Your task to perform on an android device: install app "Firefox Browser" Image 0: 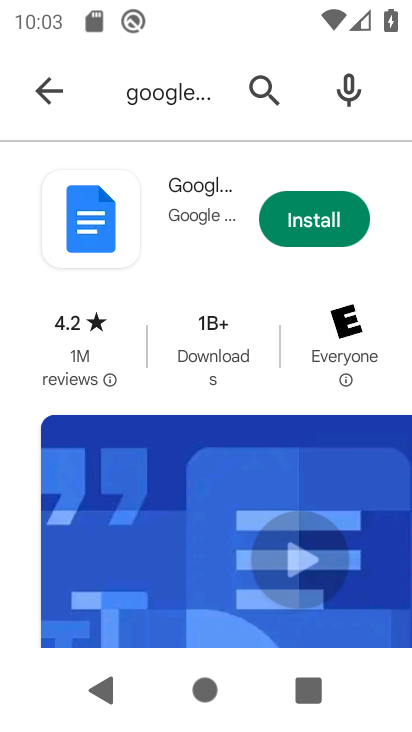
Step 0: click (250, 88)
Your task to perform on an android device: install app "Firefox Browser" Image 1: 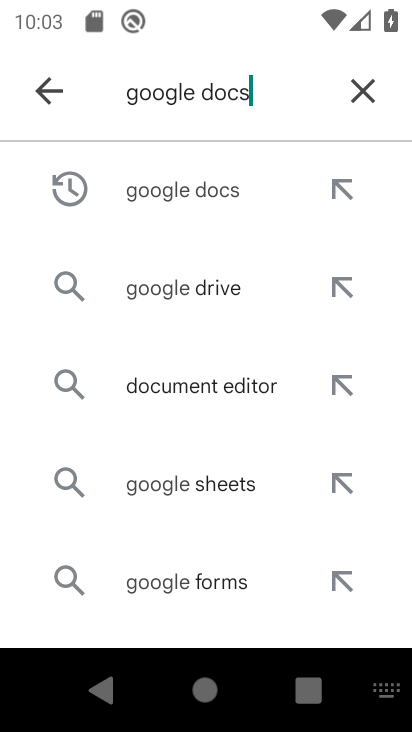
Step 1: click (353, 81)
Your task to perform on an android device: install app "Firefox Browser" Image 2: 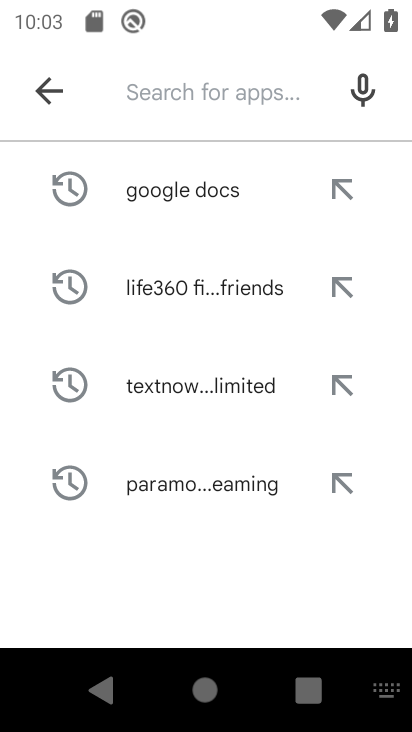
Step 2: type "Firefox Browser"
Your task to perform on an android device: install app "Firefox Browser" Image 3: 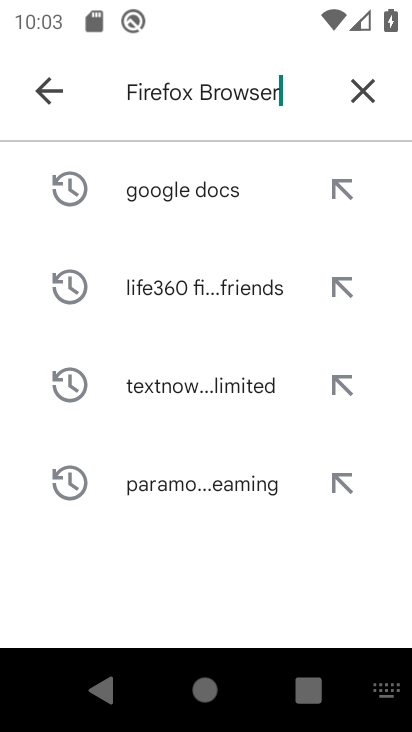
Step 3: type ""
Your task to perform on an android device: install app "Firefox Browser" Image 4: 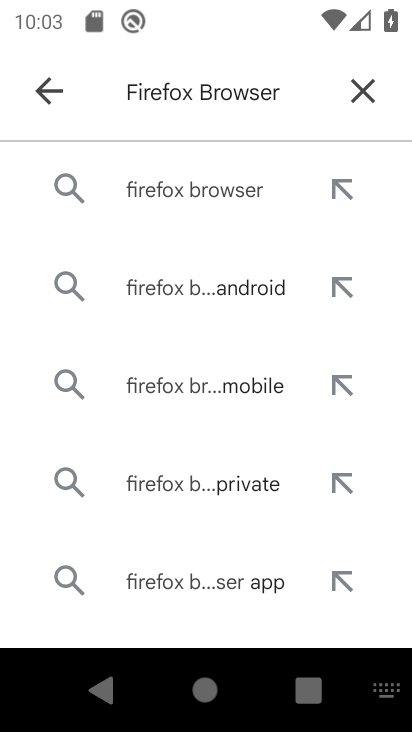
Step 4: click (247, 191)
Your task to perform on an android device: install app "Firefox Browser" Image 5: 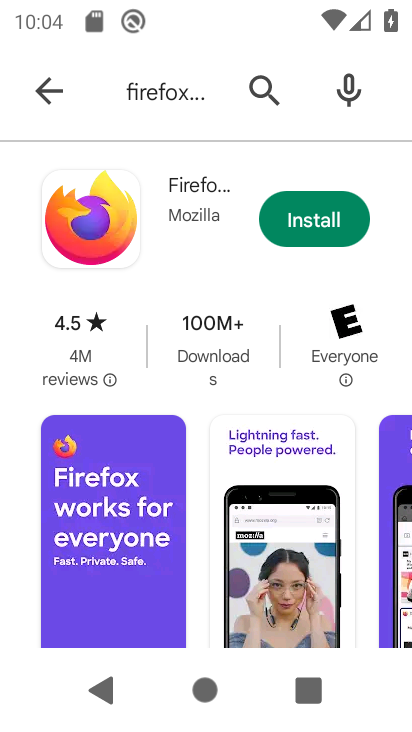
Step 5: click (320, 221)
Your task to perform on an android device: install app "Firefox Browser" Image 6: 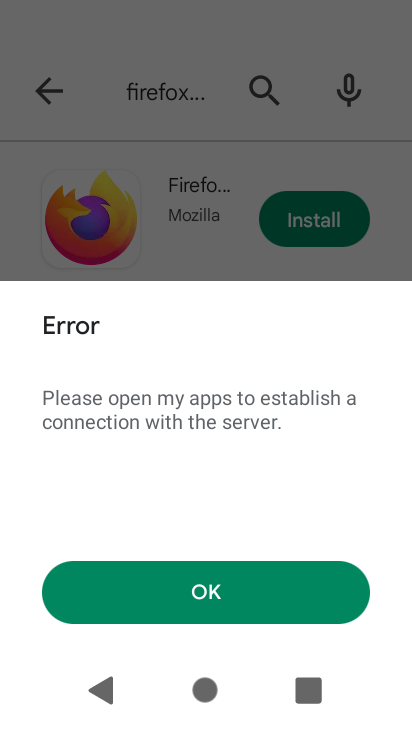
Step 6: task complete